Your task to perform on an android device: check out phone information Image 0: 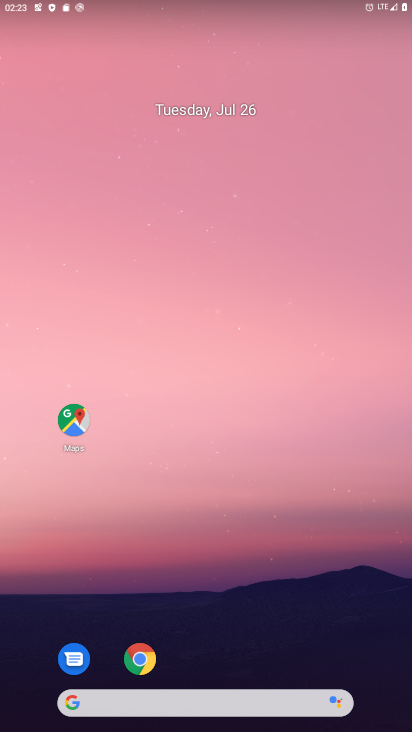
Step 0: drag from (272, 650) to (269, 75)
Your task to perform on an android device: check out phone information Image 1: 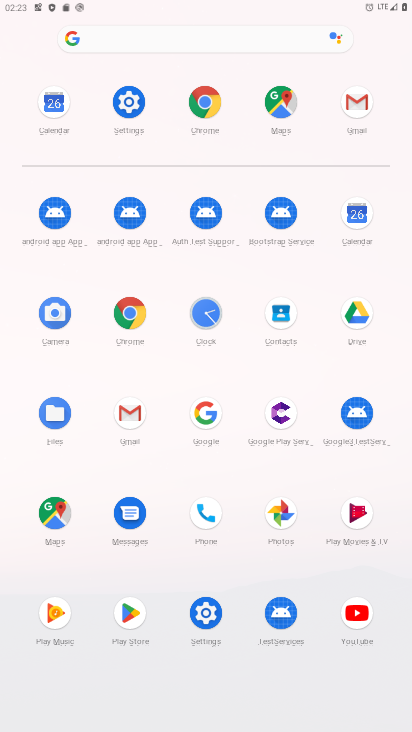
Step 1: click (203, 501)
Your task to perform on an android device: check out phone information Image 2: 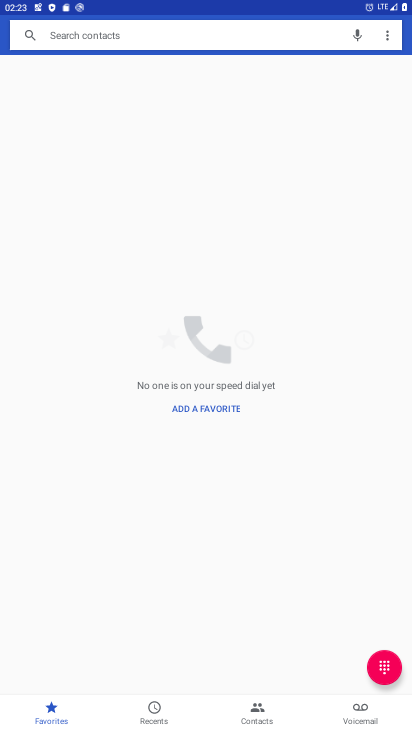
Step 2: press home button
Your task to perform on an android device: check out phone information Image 3: 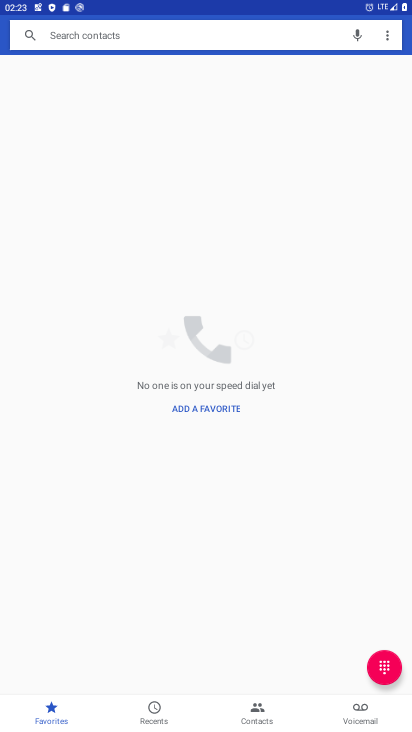
Step 3: press home button
Your task to perform on an android device: check out phone information Image 4: 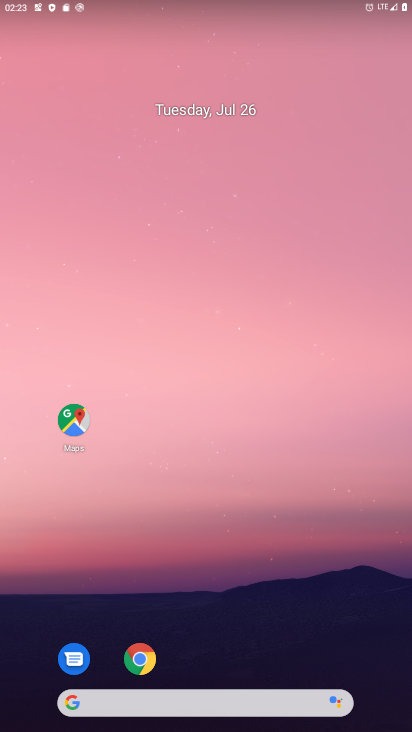
Step 4: drag from (247, 645) to (249, 98)
Your task to perform on an android device: check out phone information Image 5: 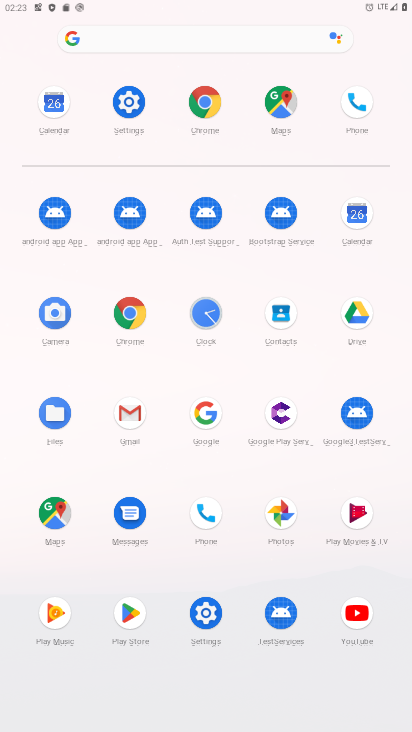
Step 5: click (206, 523)
Your task to perform on an android device: check out phone information Image 6: 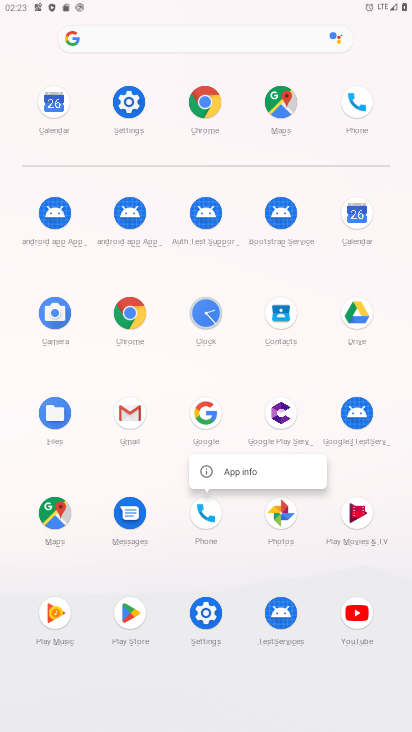
Step 6: click (232, 481)
Your task to perform on an android device: check out phone information Image 7: 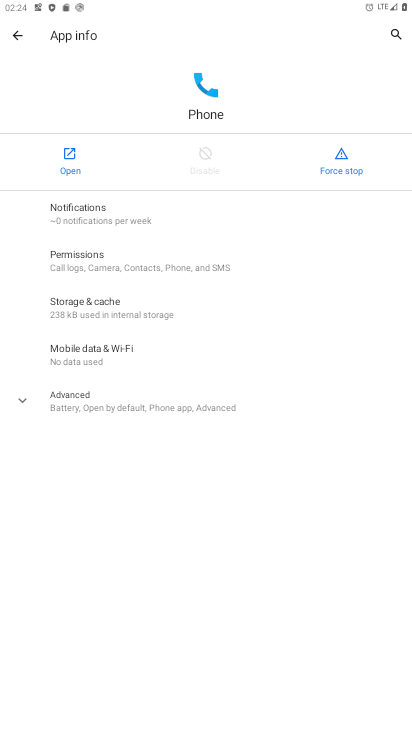
Step 7: task complete